Your task to perform on an android device: turn off wifi Image 0: 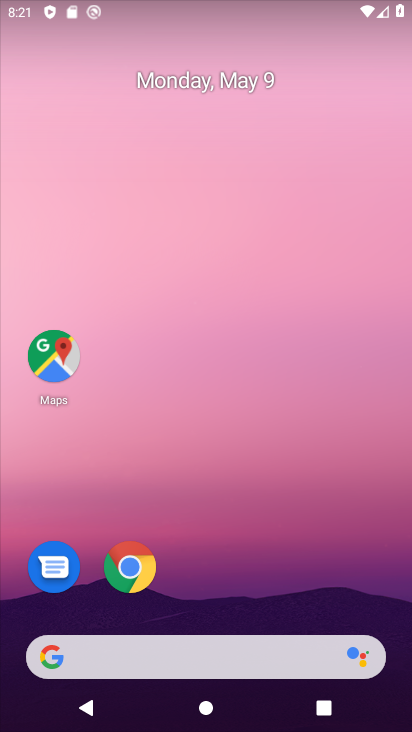
Step 0: drag from (337, 9) to (322, 382)
Your task to perform on an android device: turn off wifi Image 1: 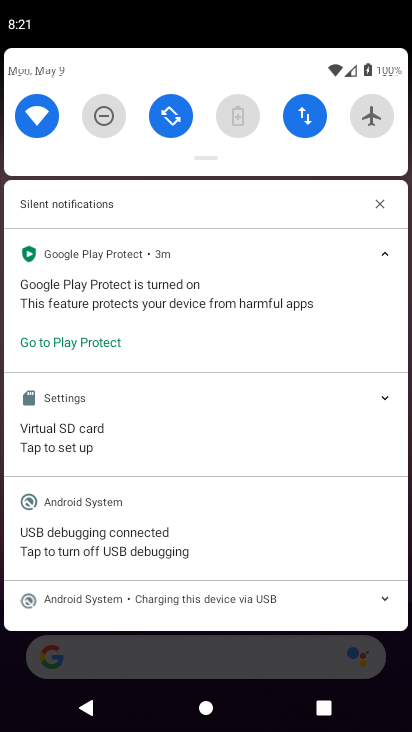
Step 1: click (49, 122)
Your task to perform on an android device: turn off wifi Image 2: 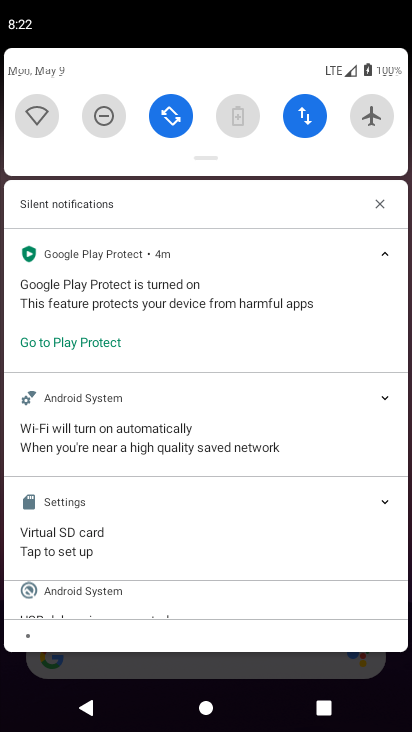
Step 2: task complete